Your task to perform on an android device: Show me popular games on the Play Store Image 0: 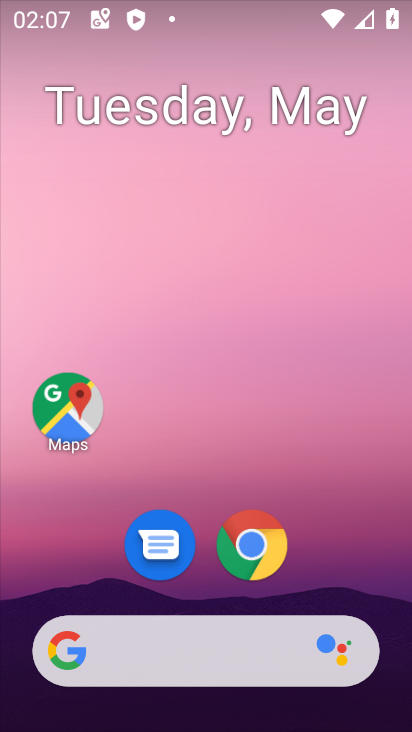
Step 0: drag from (395, 628) to (323, 75)
Your task to perform on an android device: Show me popular games on the Play Store Image 1: 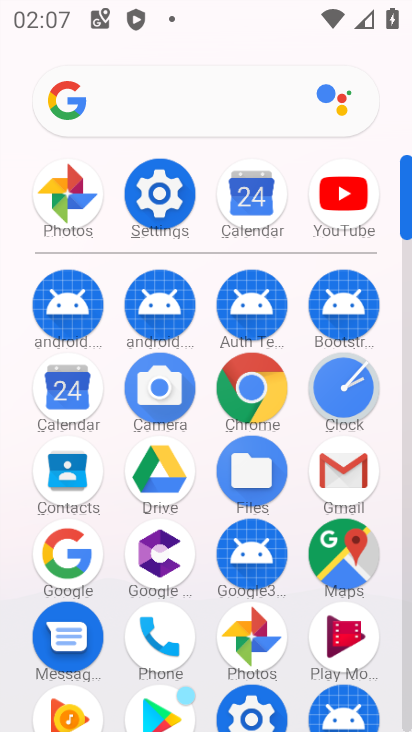
Step 1: click (405, 670)
Your task to perform on an android device: Show me popular games on the Play Store Image 2: 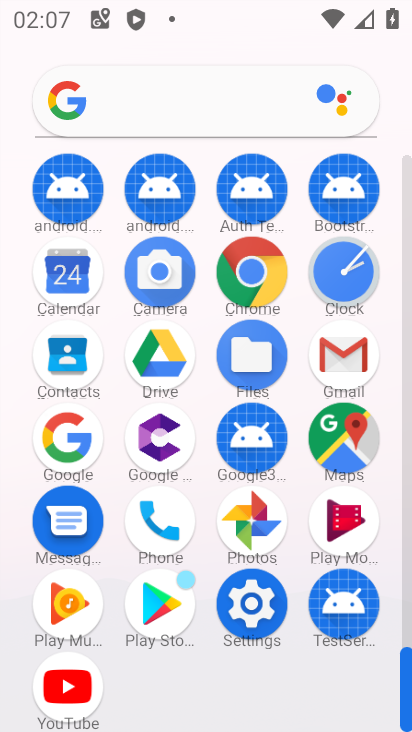
Step 2: click (163, 596)
Your task to perform on an android device: Show me popular games on the Play Store Image 3: 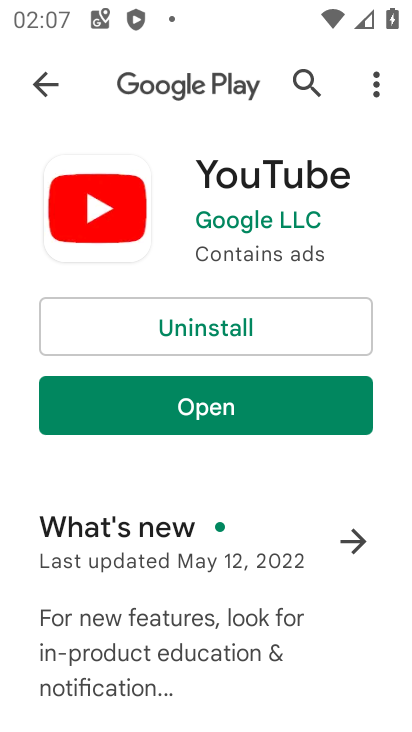
Step 3: press back button
Your task to perform on an android device: Show me popular games on the Play Store Image 4: 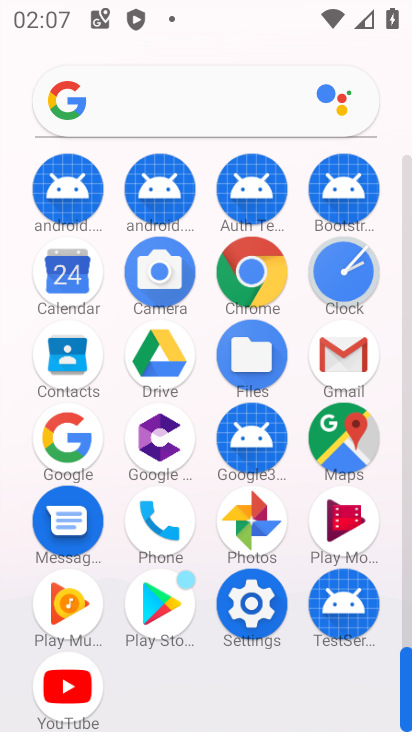
Step 4: click (168, 598)
Your task to perform on an android device: Show me popular games on the Play Store Image 5: 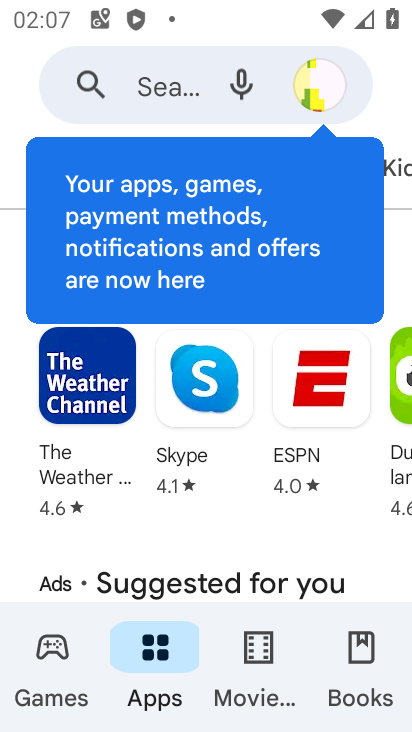
Step 5: click (60, 644)
Your task to perform on an android device: Show me popular games on the Play Store Image 6: 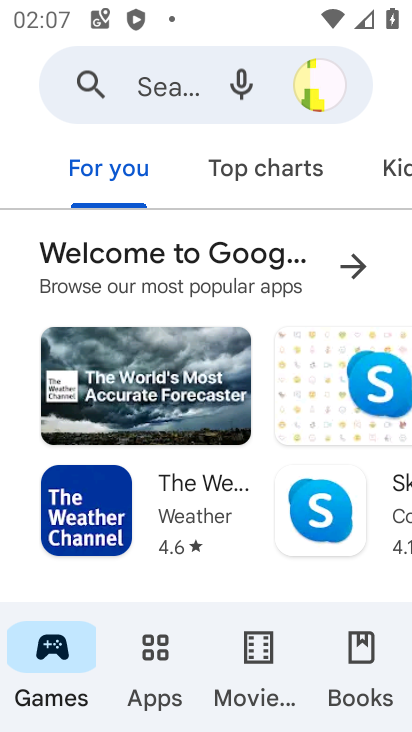
Step 6: drag from (309, 566) to (245, 185)
Your task to perform on an android device: Show me popular games on the Play Store Image 7: 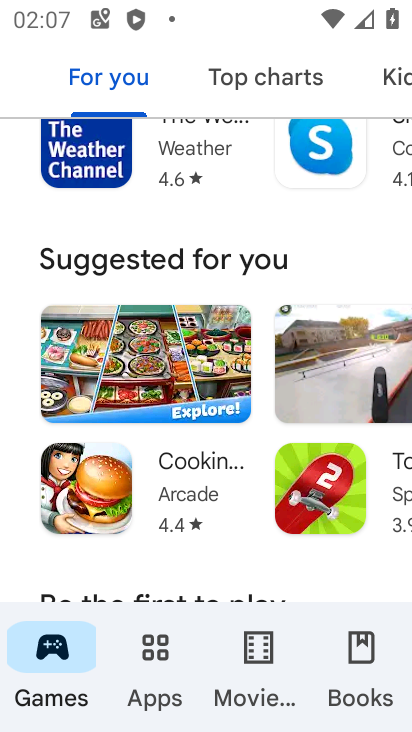
Step 7: drag from (252, 566) to (193, 234)
Your task to perform on an android device: Show me popular games on the Play Store Image 8: 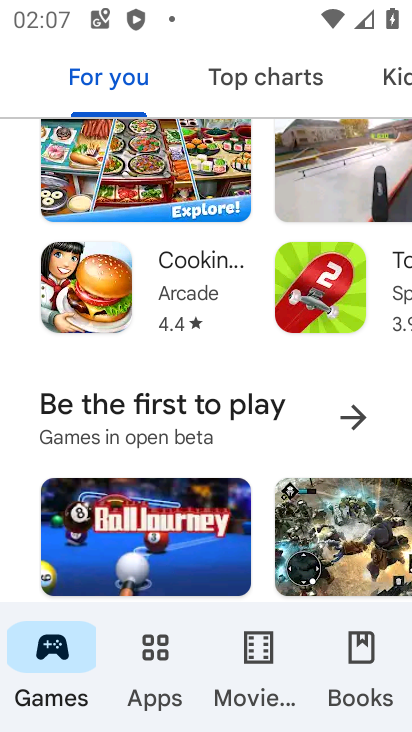
Step 8: drag from (255, 490) to (208, 133)
Your task to perform on an android device: Show me popular games on the Play Store Image 9: 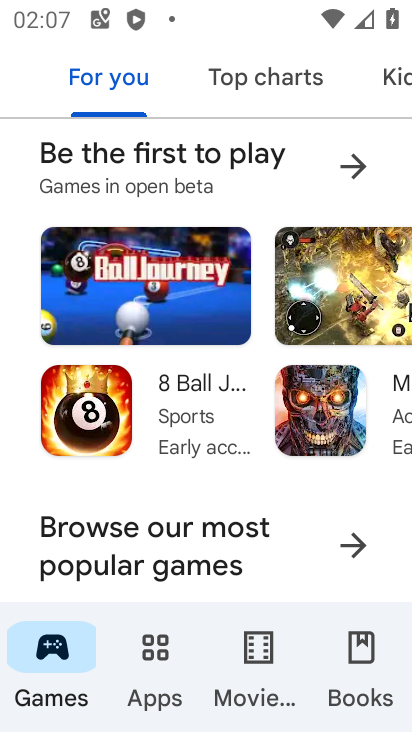
Step 9: drag from (249, 535) to (250, 283)
Your task to perform on an android device: Show me popular games on the Play Store Image 10: 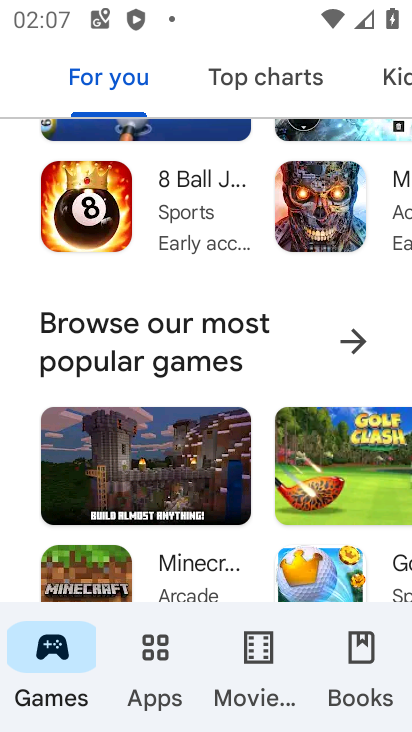
Step 10: click (353, 334)
Your task to perform on an android device: Show me popular games on the Play Store Image 11: 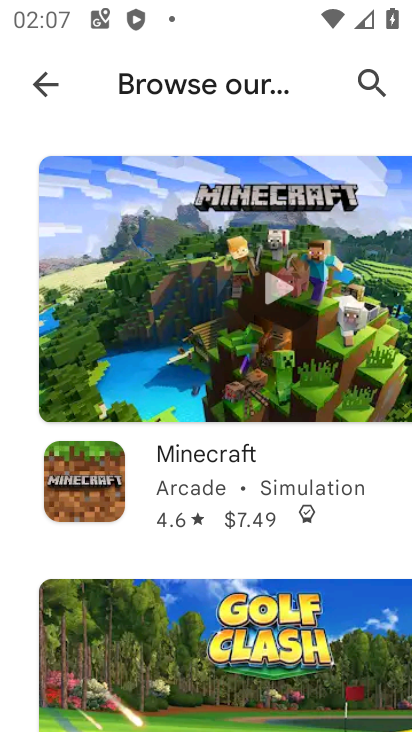
Step 11: task complete